Your task to perform on an android device: install app "Clock" Image 0: 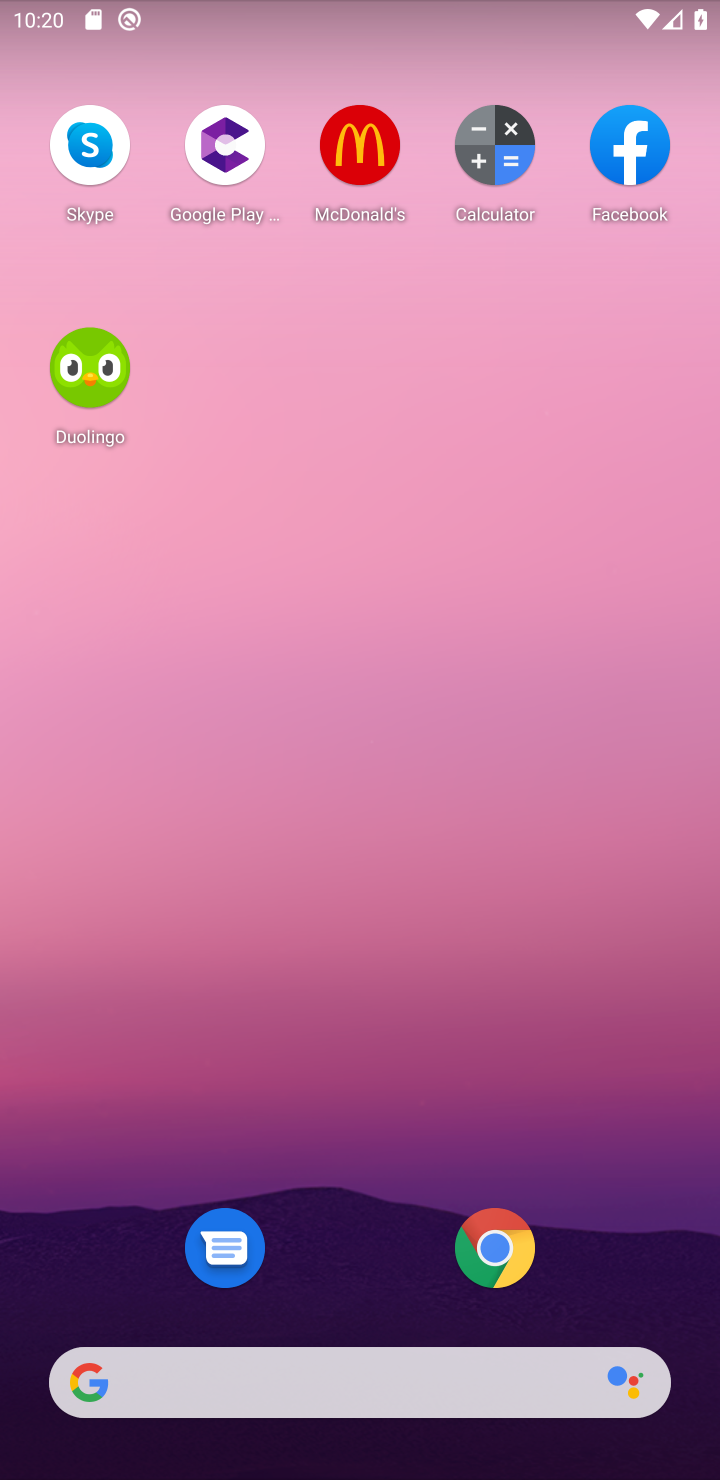
Step 0: drag from (588, 1132) to (503, 115)
Your task to perform on an android device: install app "Clock" Image 1: 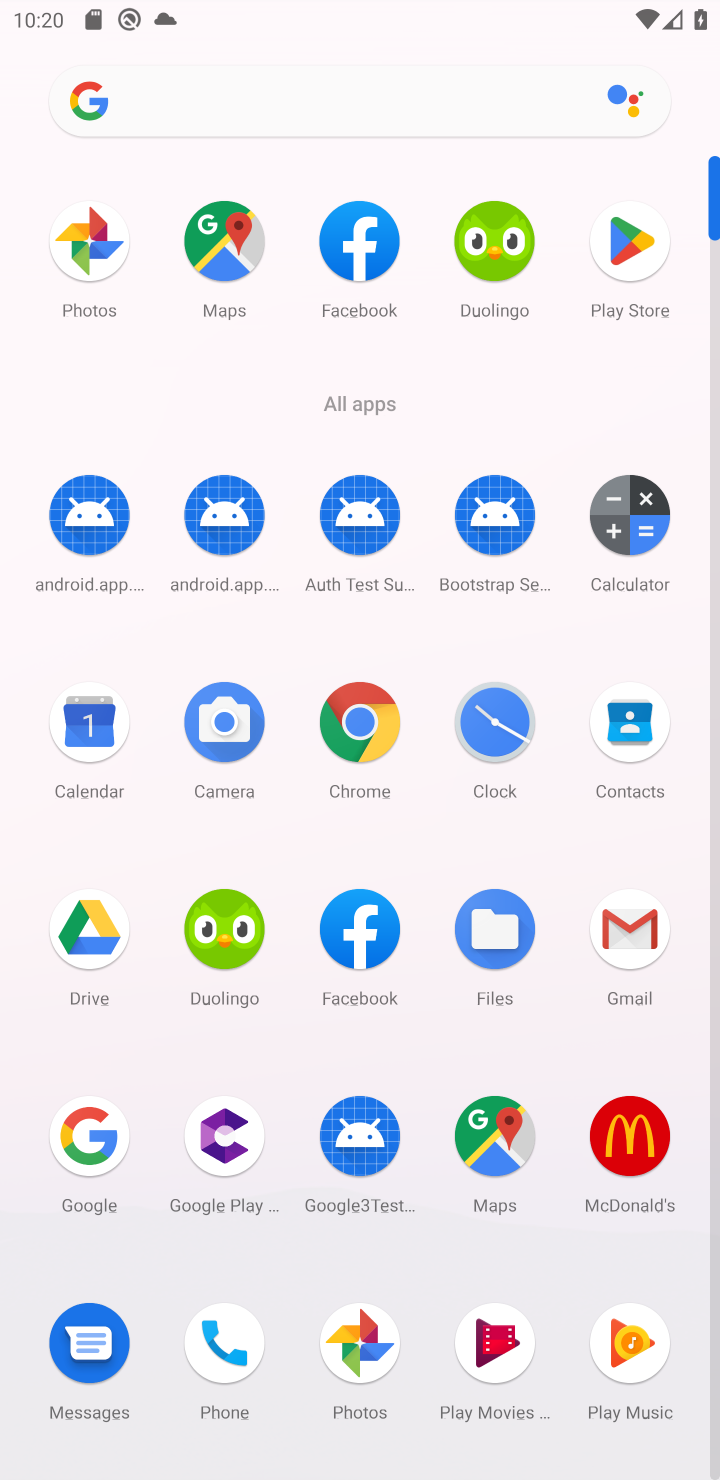
Step 1: drag from (558, 1283) to (541, 637)
Your task to perform on an android device: install app "Clock" Image 2: 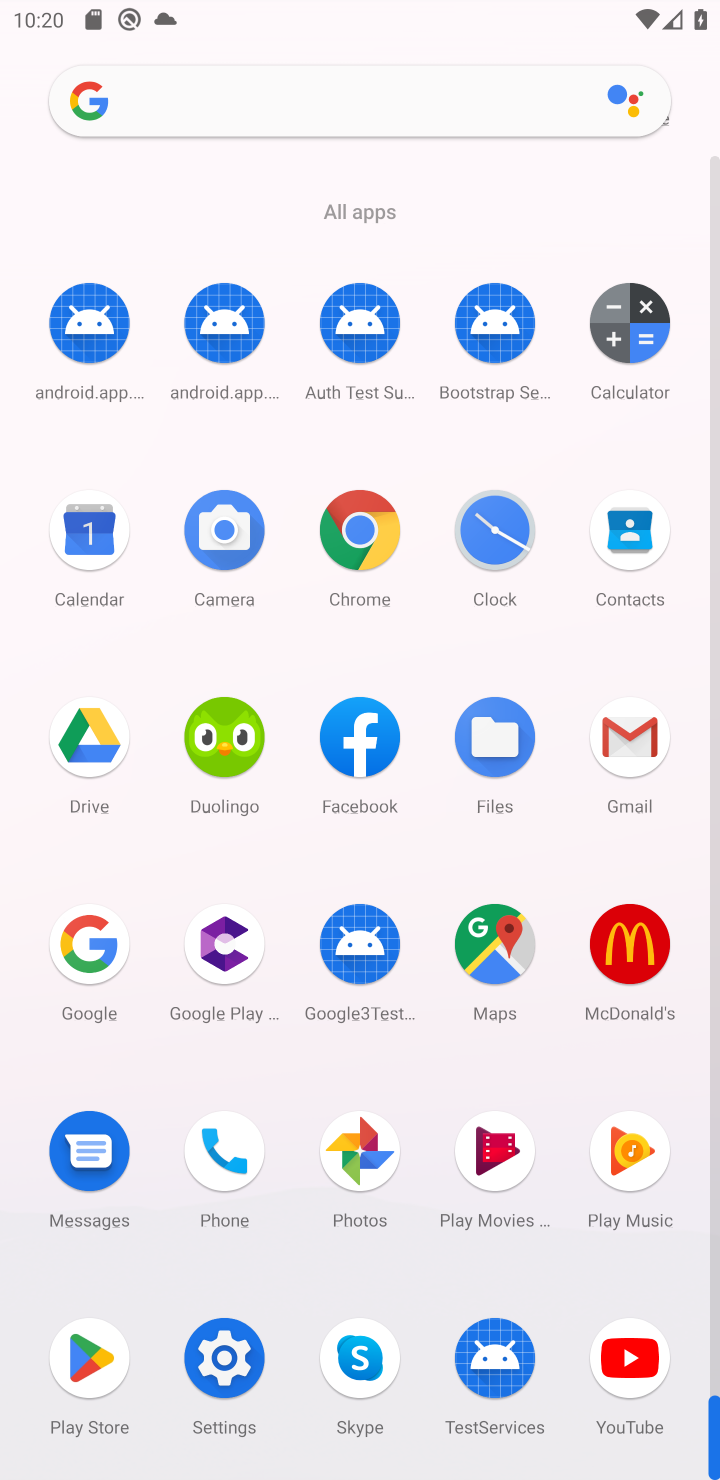
Step 2: click (92, 1354)
Your task to perform on an android device: install app "Clock" Image 3: 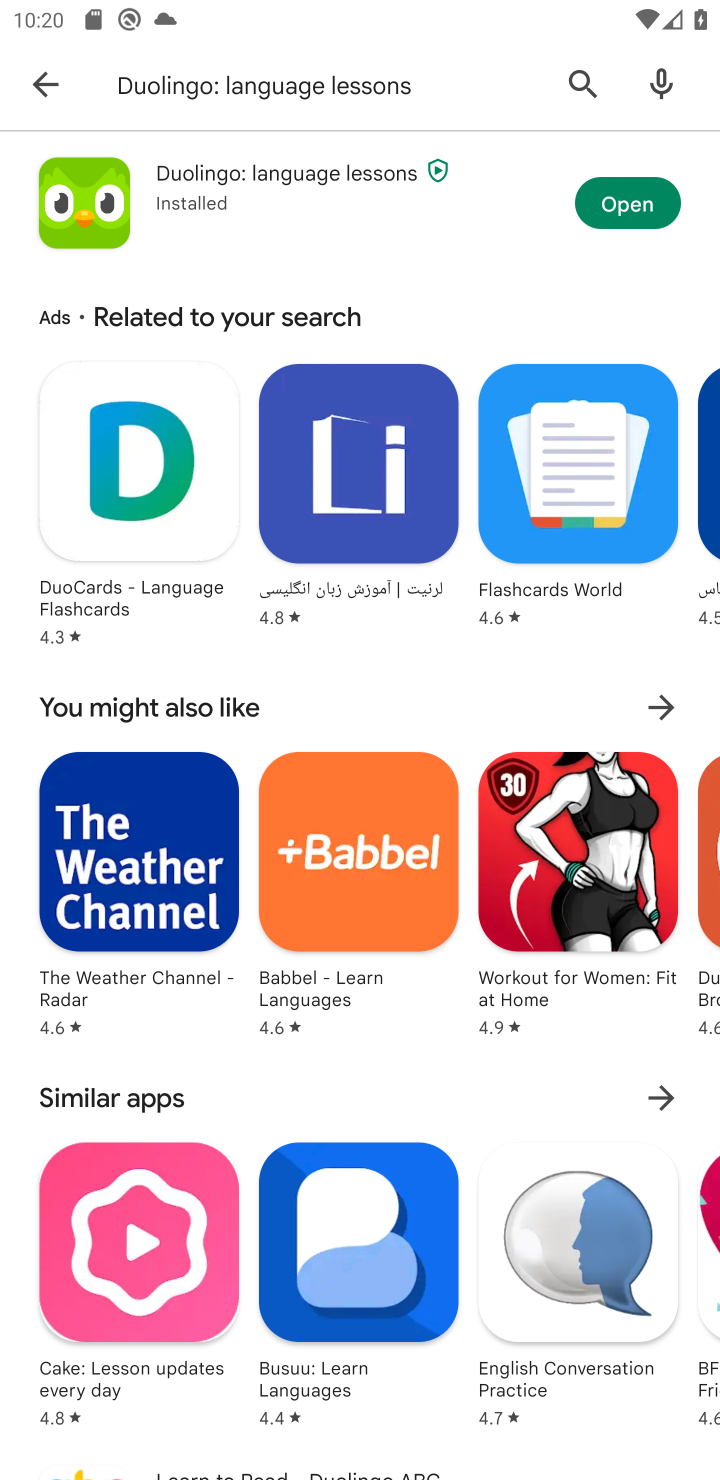
Step 3: click (375, 70)
Your task to perform on an android device: install app "Clock" Image 4: 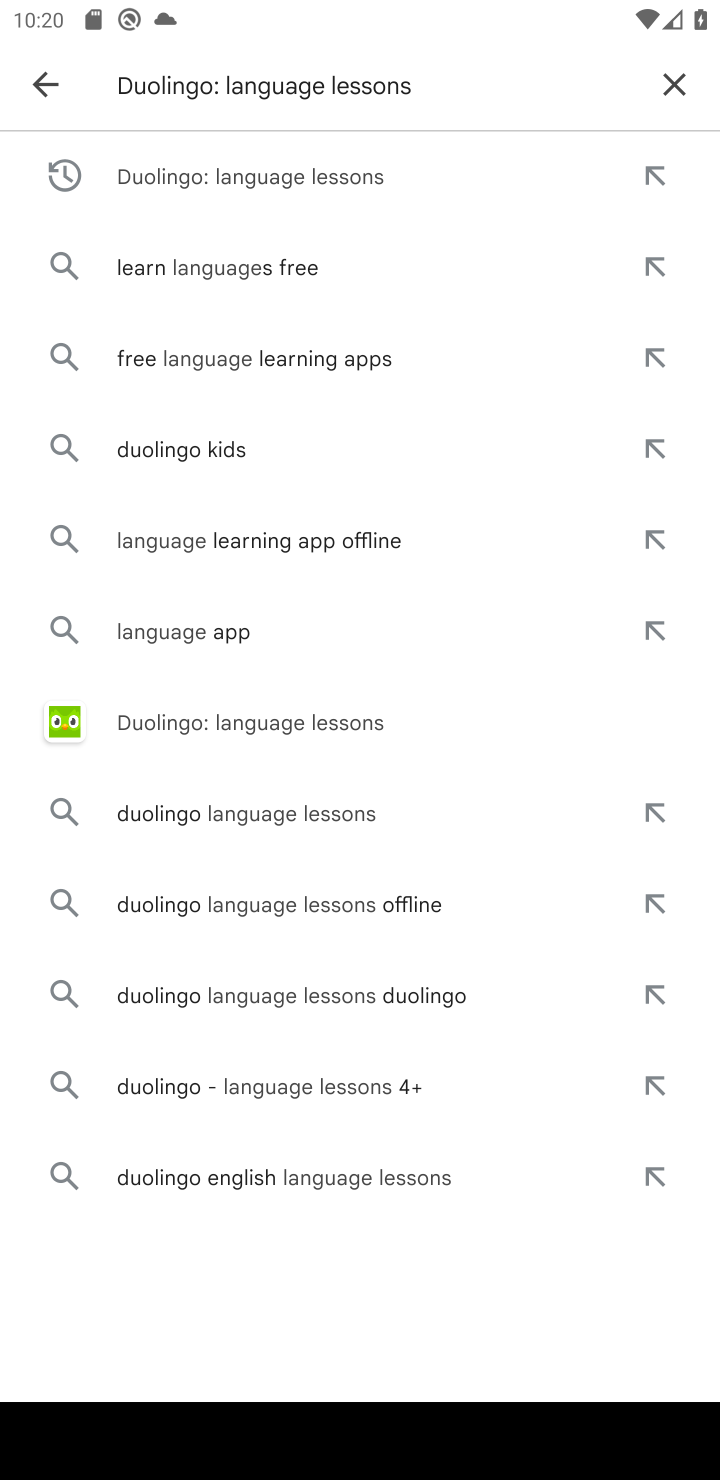
Step 4: click (681, 77)
Your task to perform on an android device: install app "Clock" Image 5: 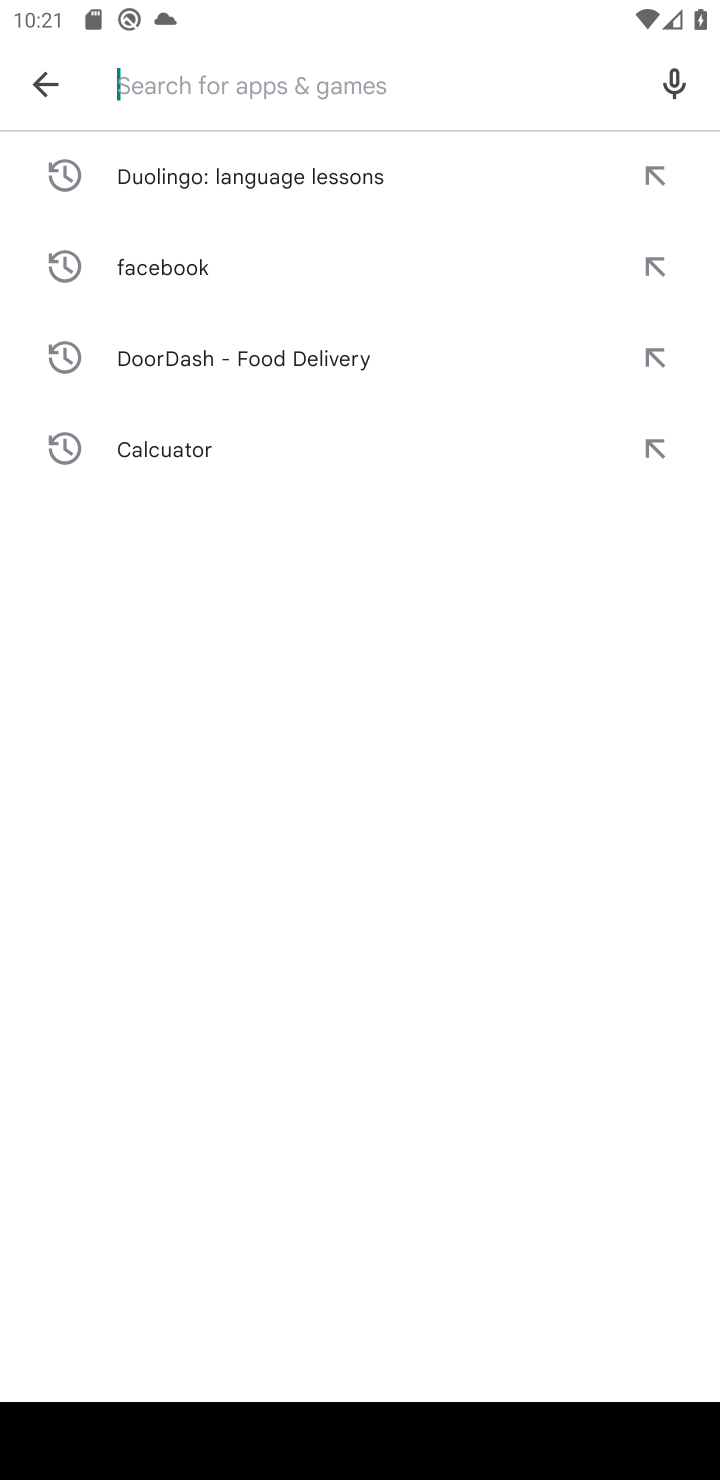
Step 5: type "Clock"
Your task to perform on an android device: install app "Clock" Image 6: 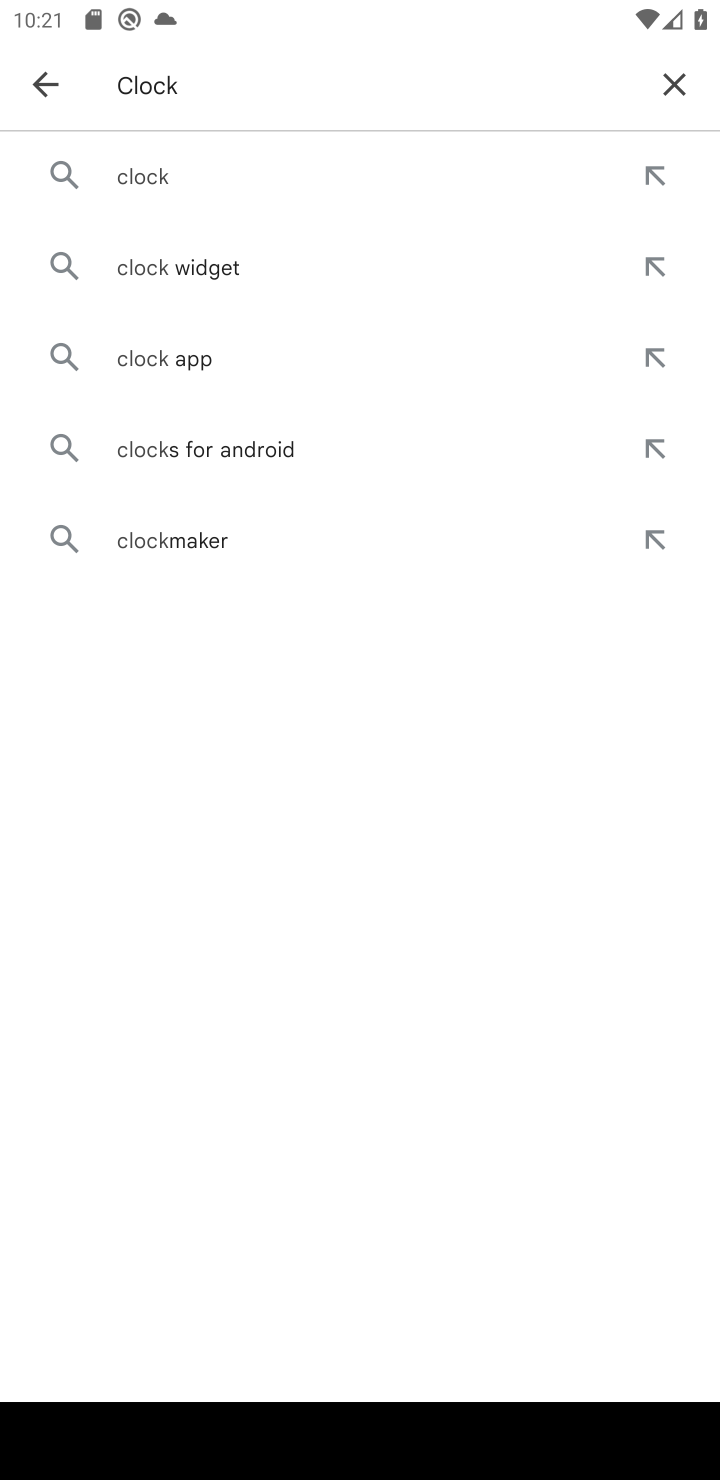
Step 6: press enter
Your task to perform on an android device: install app "Clock" Image 7: 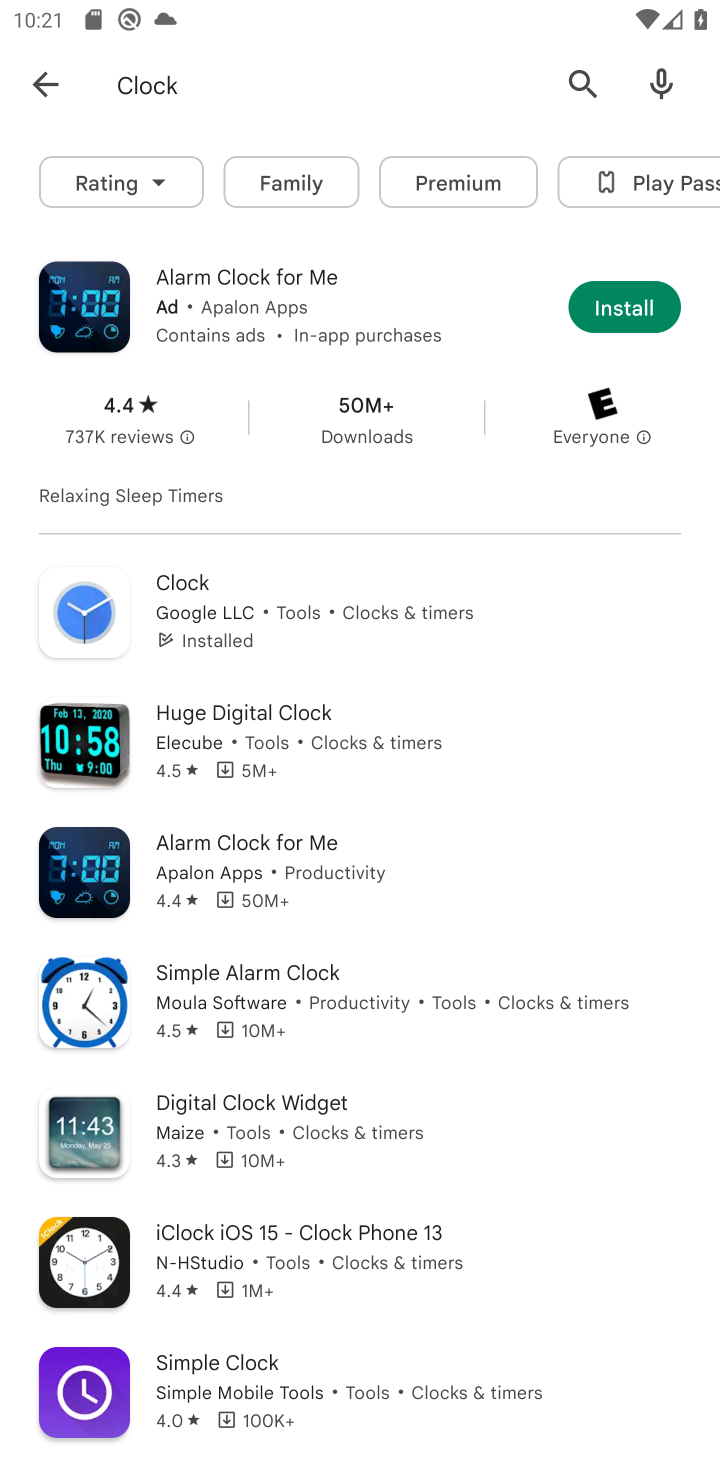
Step 7: click (400, 620)
Your task to perform on an android device: install app "Clock" Image 8: 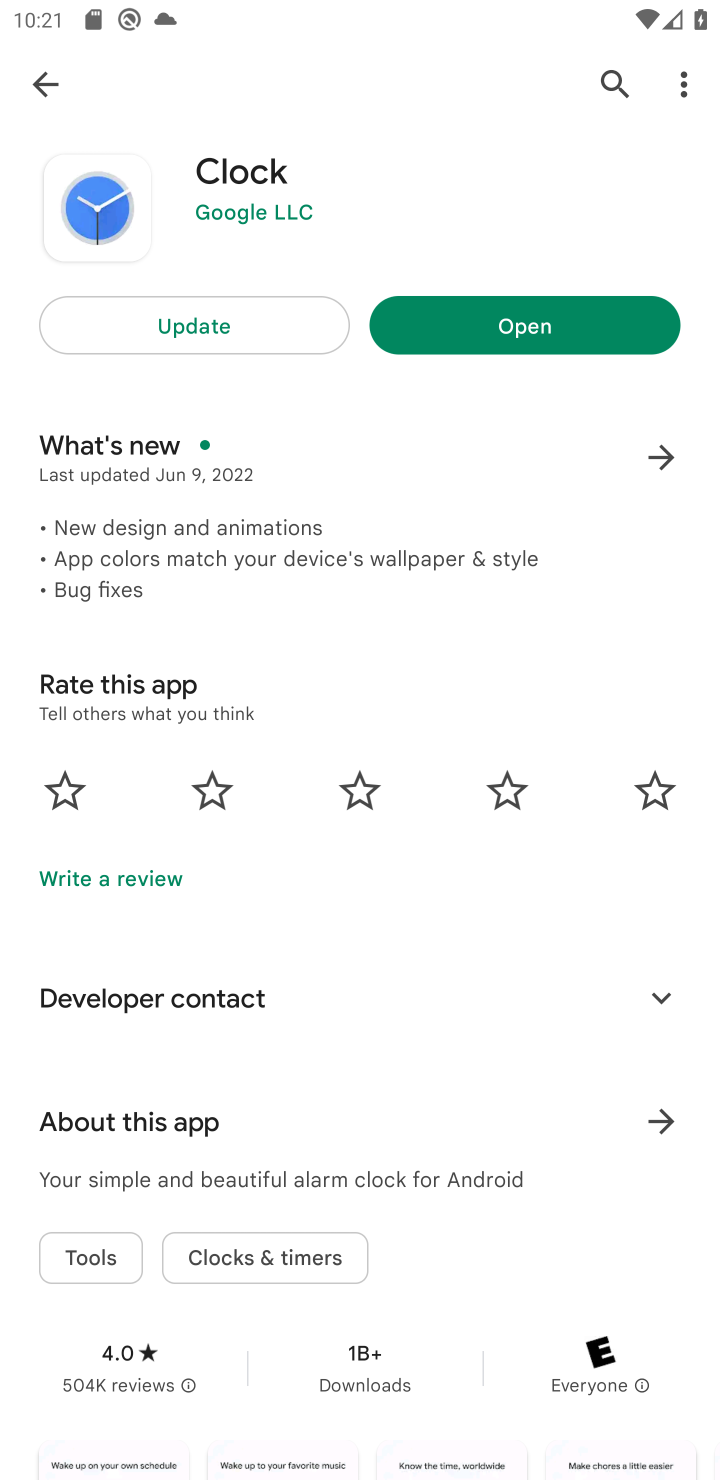
Step 8: task complete